Your task to perform on an android device: find which apps use the phone's location Image 0: 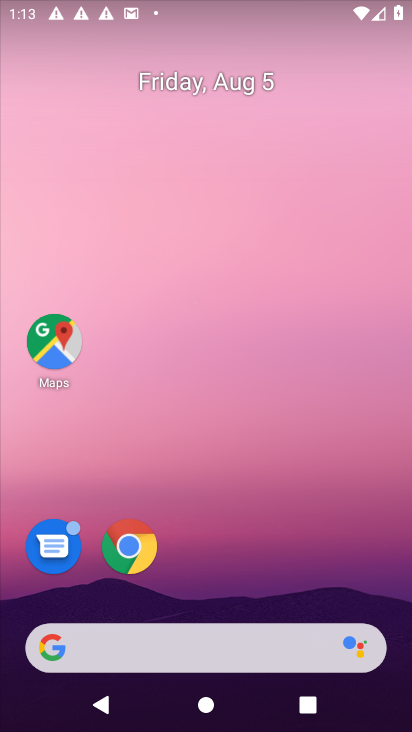
Step 0: drag from (226, 590) to (210, 14)
Your task to perform on an android device: find which apps use the phone's location Image 1: 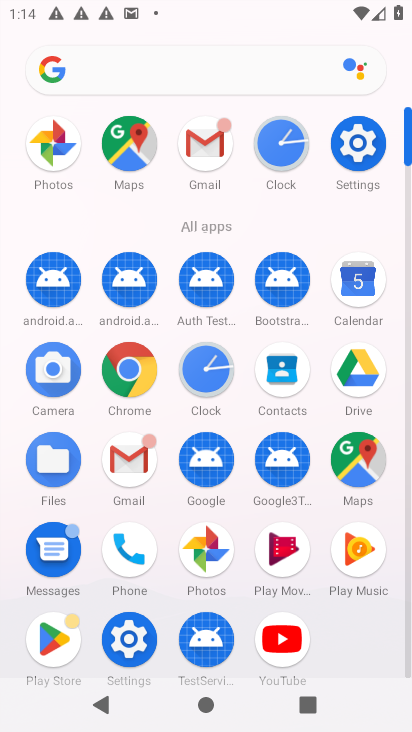
Step 1: click (130, 628)
Your task to perform on an android device: find which apps use the phone's location Image 2: 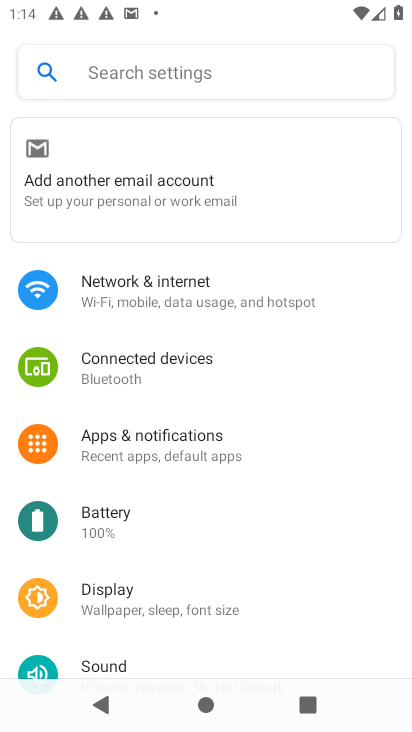
Step 2: drag from (172, 643) to (252, 87)
Your task to perform on an android device: find which apps use the phone's location Image 3: 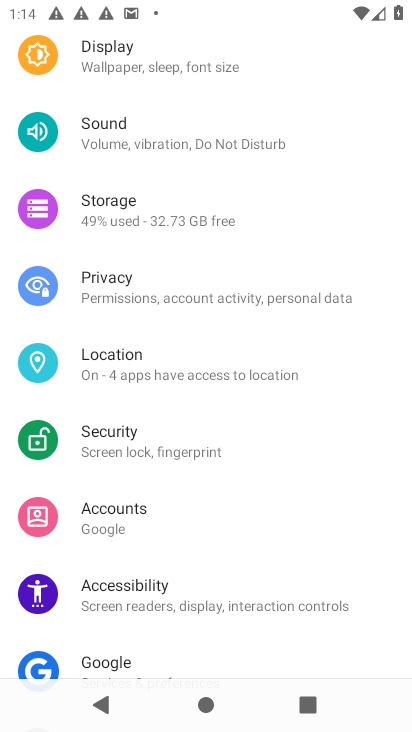
Step 3: click (150, 349)
Your task to perform on an android device: find which apps use the phone's location Image 4: 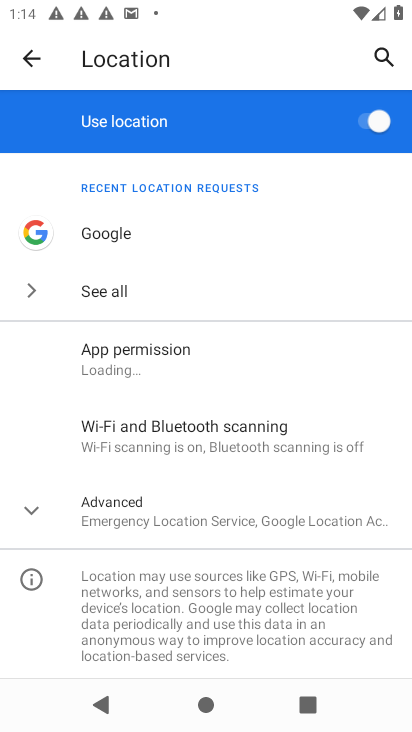
Step 4: click (133, 356)
Your task to perform on an android device: find which apps use the phone's location Image 5: 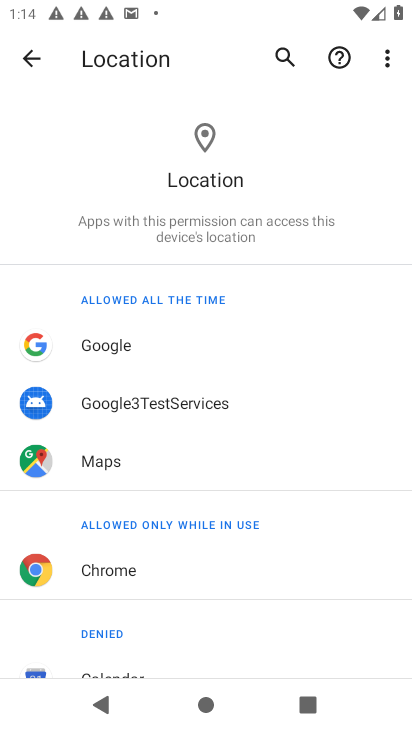
Step 5: task complete